Your task to perform on an android device: change the clock display to digital Image 0: 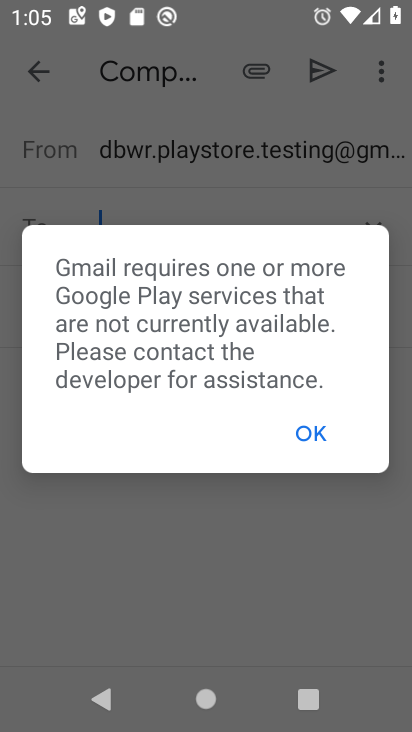
Step 0: press home button
Your task to perform on an android device: change the clock display to digital Image 1: 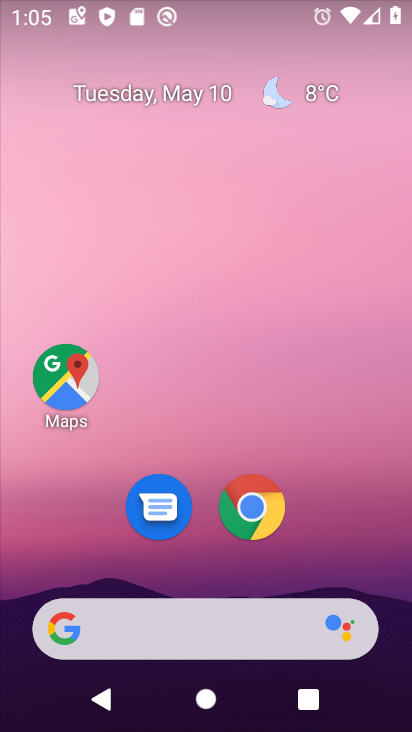
Step 1: drag from (230, 726) to (230, 254)
Your task to perform on an android device: change the clock display to digital Image 2: 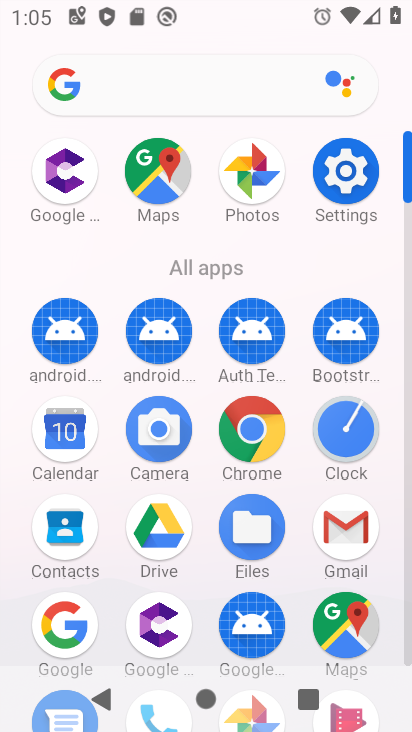
Step 2: click (346, 432)
Your task to perform on an android device: change the clock display to digital Image 3: 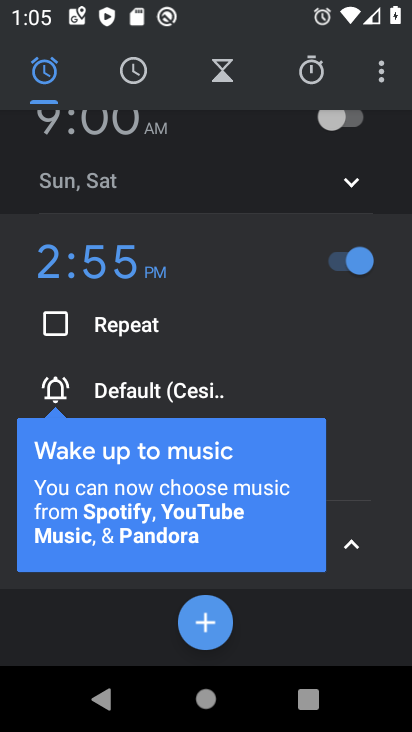
Step 3: click (382, 83)
Your task to perform on an android device: change the clock display to digital Image 4: 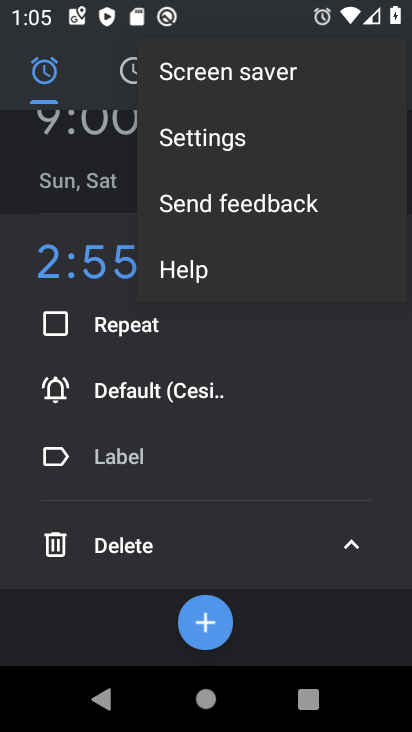
Step 4: click (211, 137)
Your task to perform on an android device: change the clock display to digital Image 5: 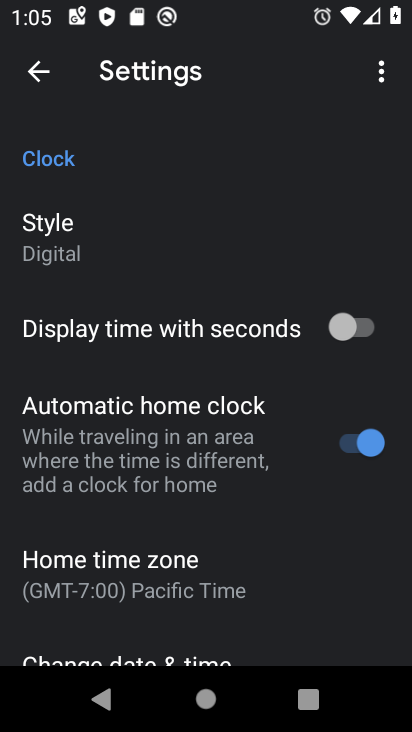
Step 5: task complete